Your task to perform on an android device: Add asus zenbook to the cart on target, then select checkout. Image 0: 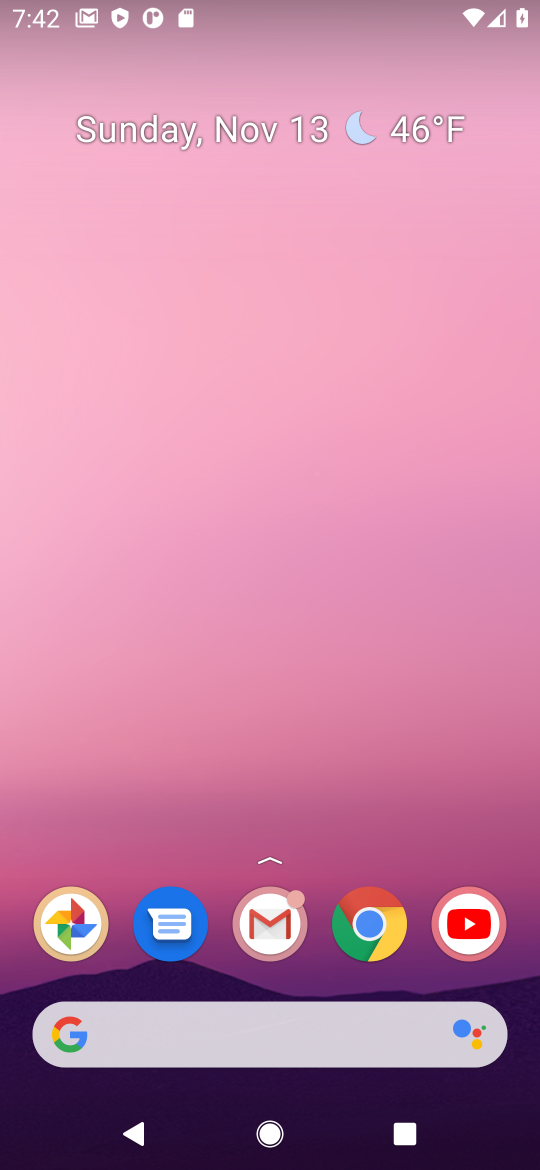
Step 0: click (364, 915)
Your task to perform on an android device: Add asus zenbook to the cart on target, then select checkout. Image 1: 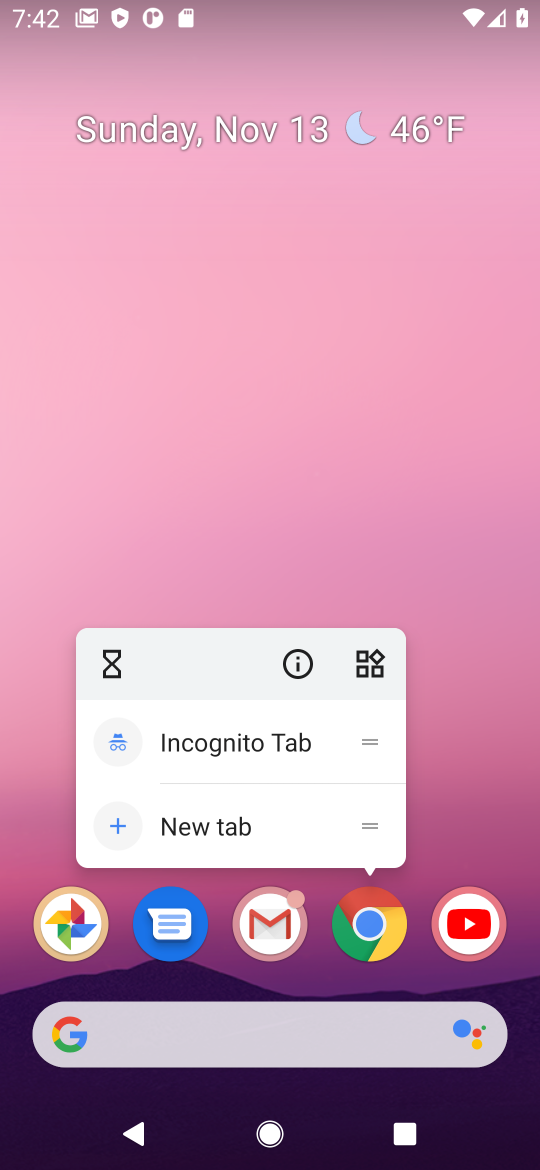
Step 1: click (364, 917)
Your task to perform on an android device: Add asus zenbook to the cart on target, then select checkout. Image 2: 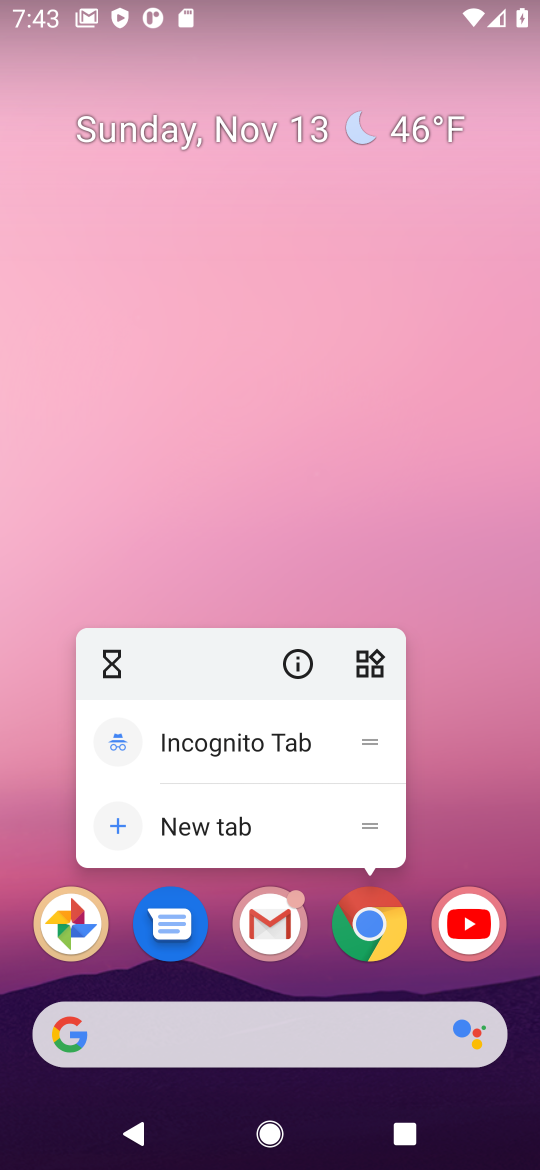
Step 2: click (366, 924)
Your task to perform on an android device: Add asus zenbook to the cart on target, then select checkout. Image 3: 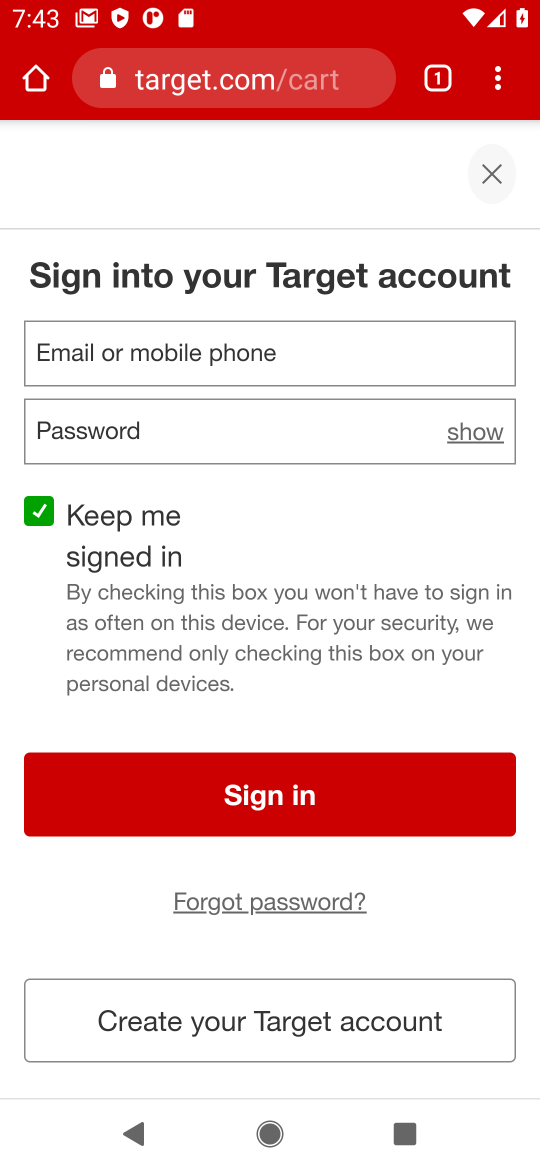
Step 3: click (485, 166)
Your task to perform on an android device: Add asus zenbook to the cart on target, then select checkout. Image 4: 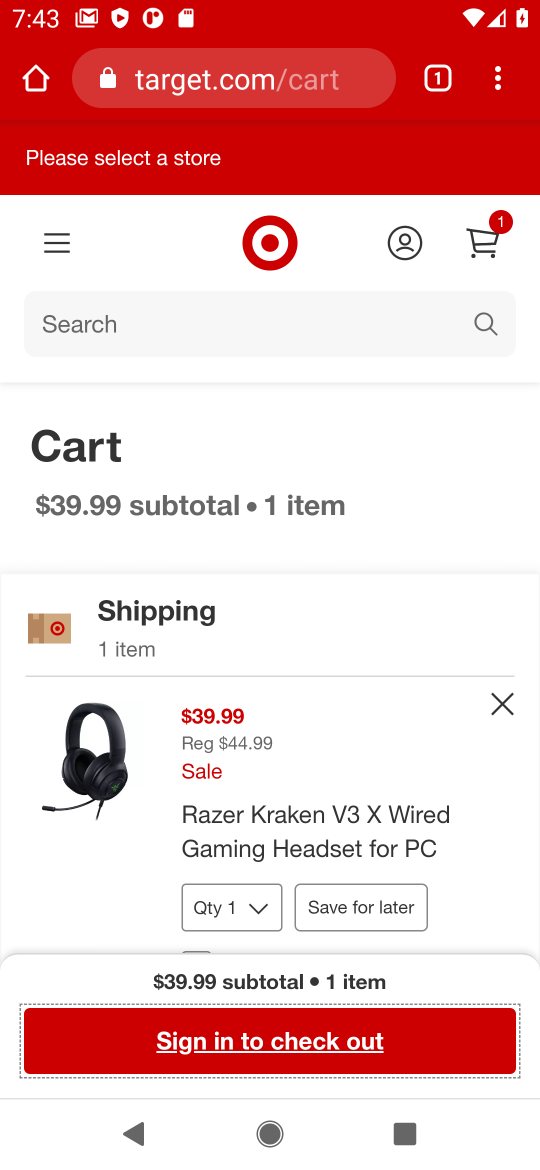
Step 4: click (212, 336)
Your task to perform on an android device: Add asus zenbook to the cart on target, then select checkout. Image 5: 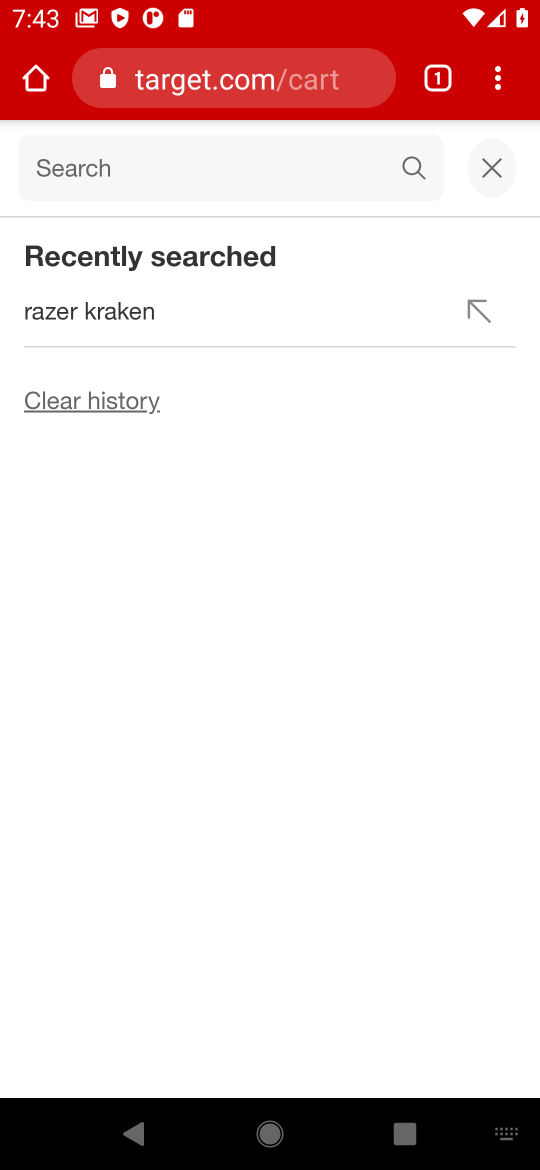
Step 5: type " asus zenbook"
Your task to perform on an android device: Add asus zenbook to the cart on target, then select checkout. Image 6: 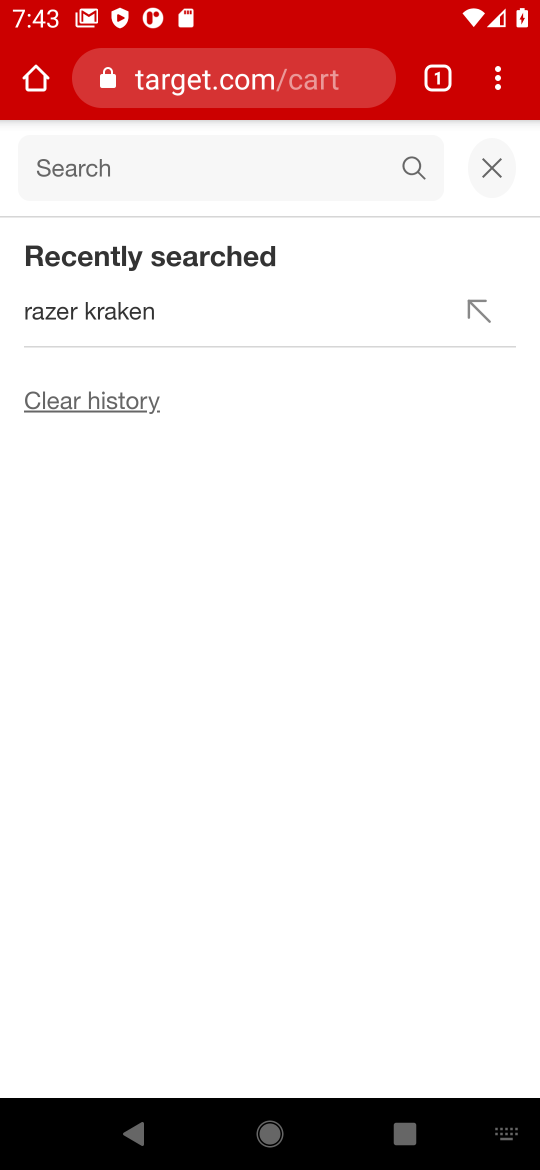
Step 6: press enter
Your task to perform on an android device: Add asus zenbook to the cart on target, then select checkout. Image 7: 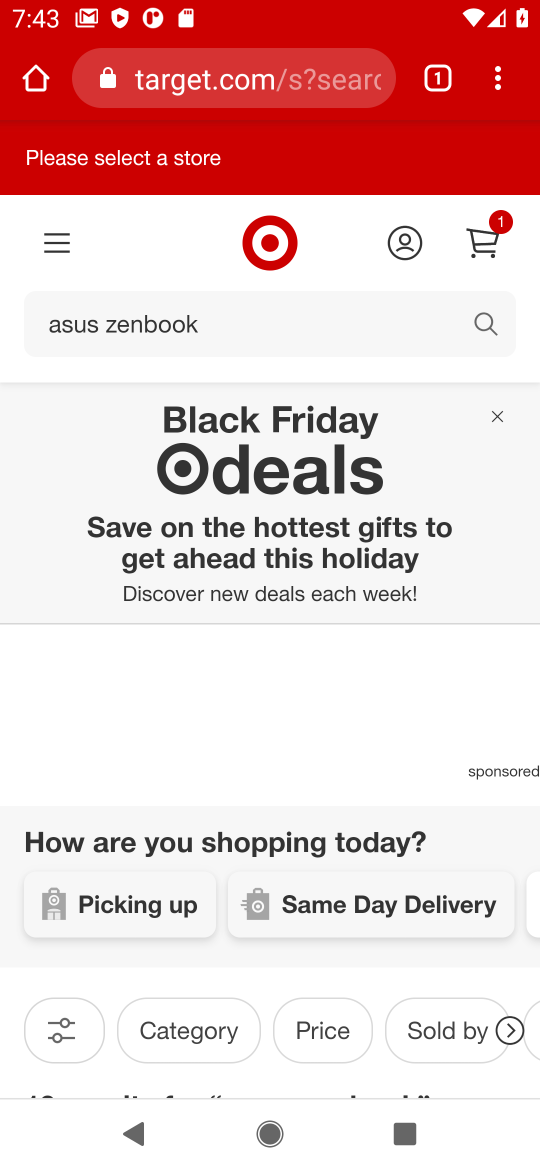
Step 7: drag from (312, 747) to (471, 338)
Your task to perform on an android device: Add asus zenbook to the cart on target, then select checkout. Image 8: 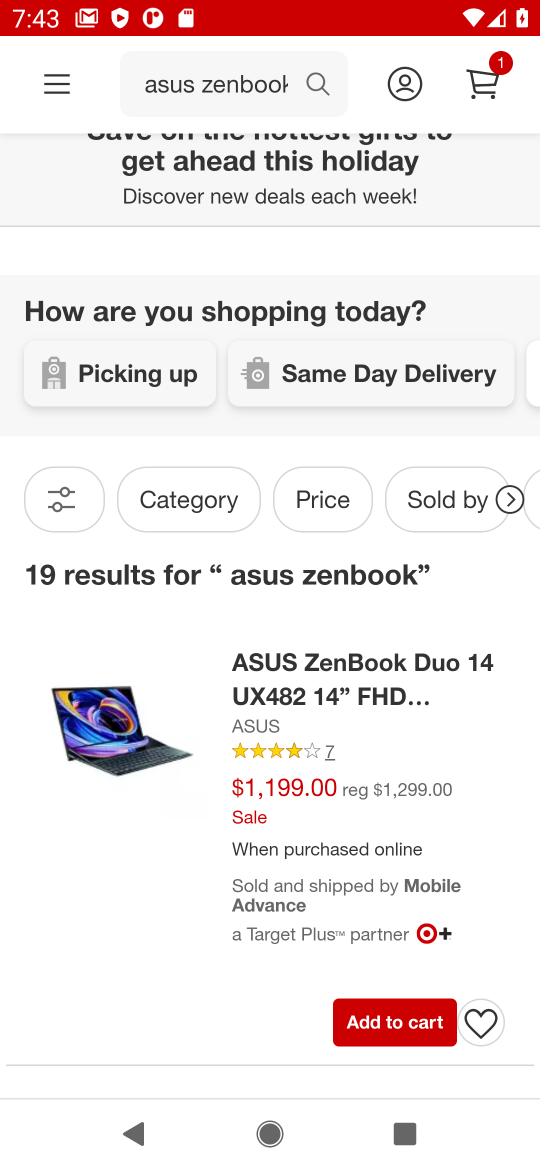
Step 8: click (347, 752)
Your task to perform on an android device: Add asus zenbook to the cart on target, then select checkout. Image 9: 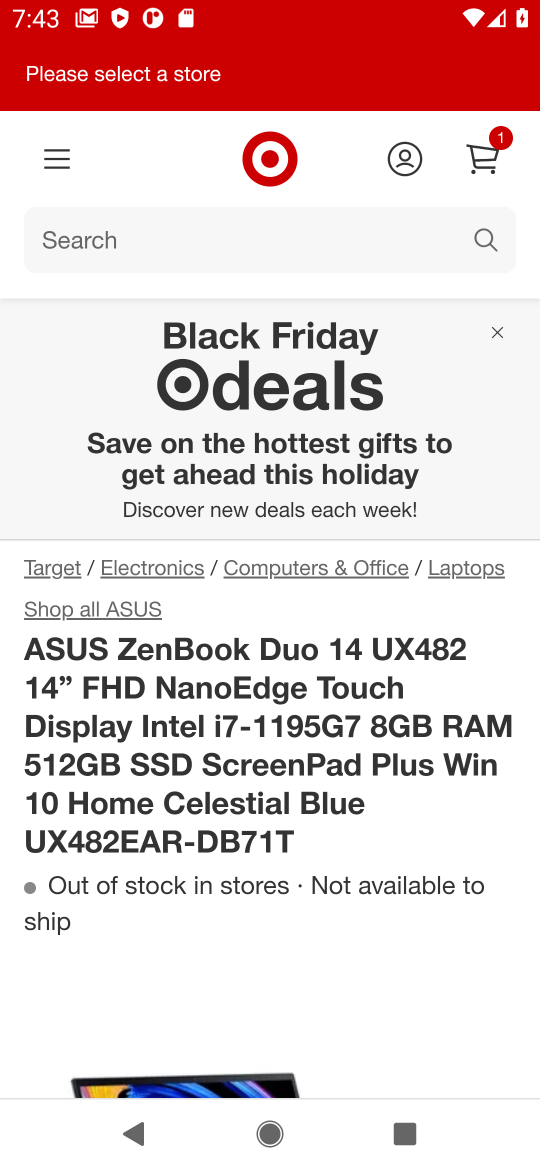
Step 9: drag from (245, 971) to (377, 146)
Your task to perform on an android device: Add asus zenbook to the cart on target, then select checkout. Image 10: 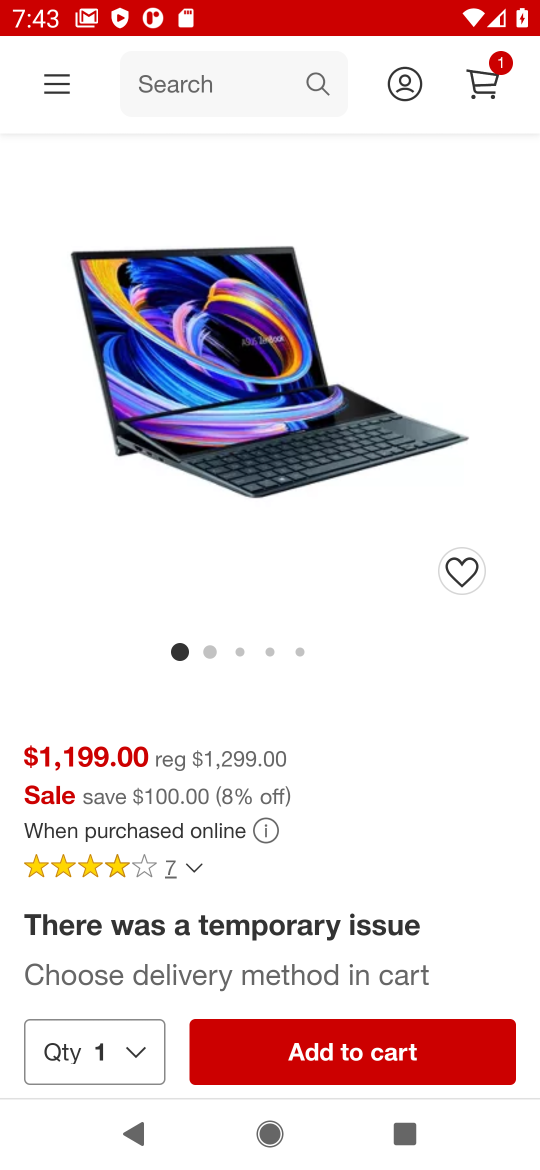
Step 10: click (410, 1053)
Your task to perform on an android device: Add asus zenbook to the cart on target, then select checkout. Image 11: 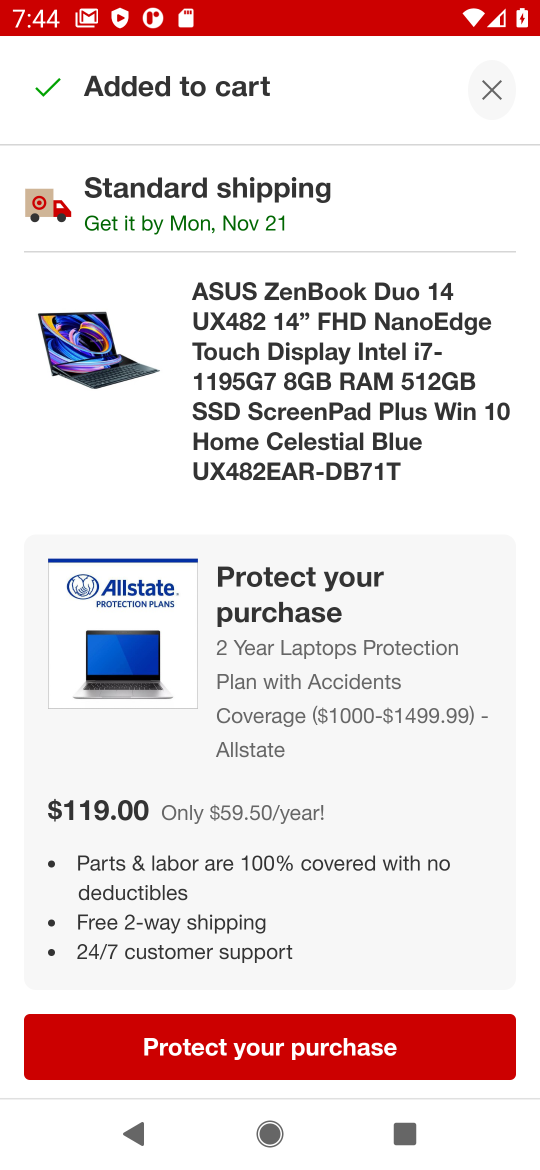
Step 11: drag from (291, 990) to (334, 219)
Your task to perform on an android device: Add asus zenbook to the cart on target, then select checkout. Image 12: 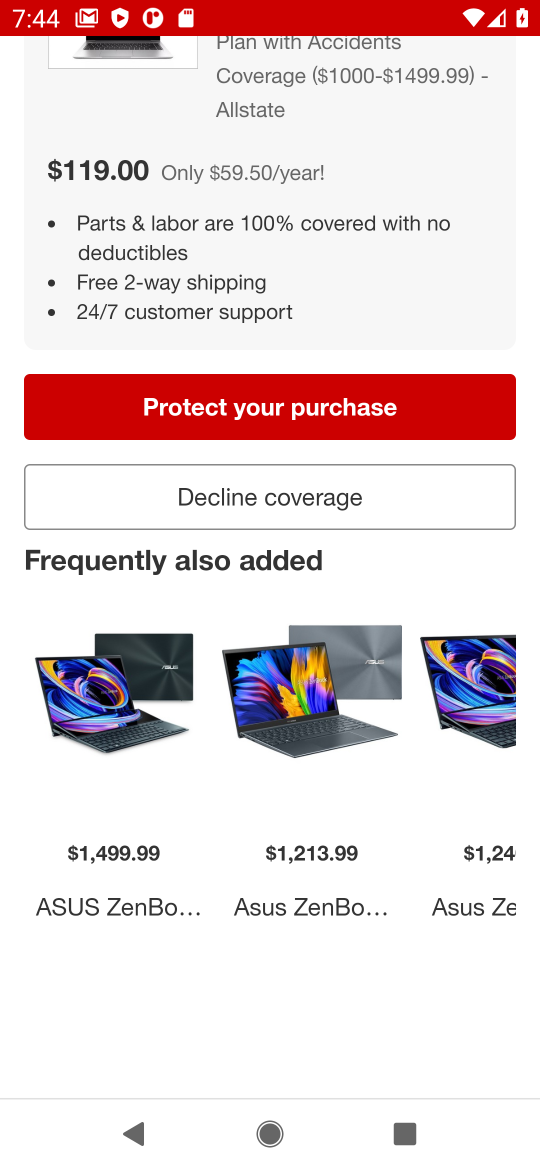
Step 12: click (301, 491)
Your task to perform on an android device: Add asus zenbook to the cart on target, then select checkout. Image 13: 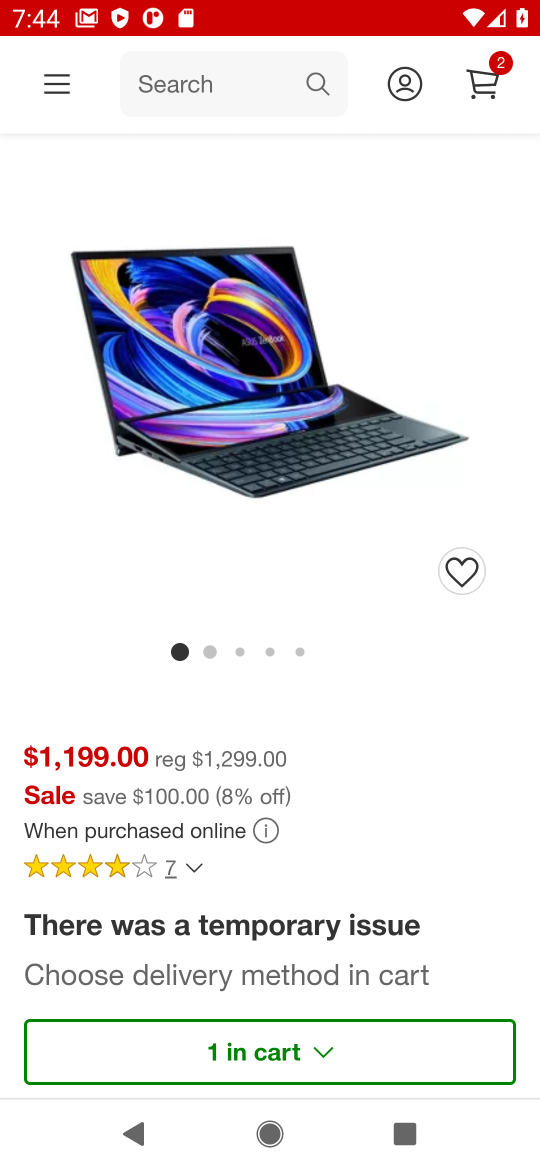
Step 13: click (489, 73)
Your task to perform on an android device: Add asus zenbook to the cart on target, then select checkout. Image 14: 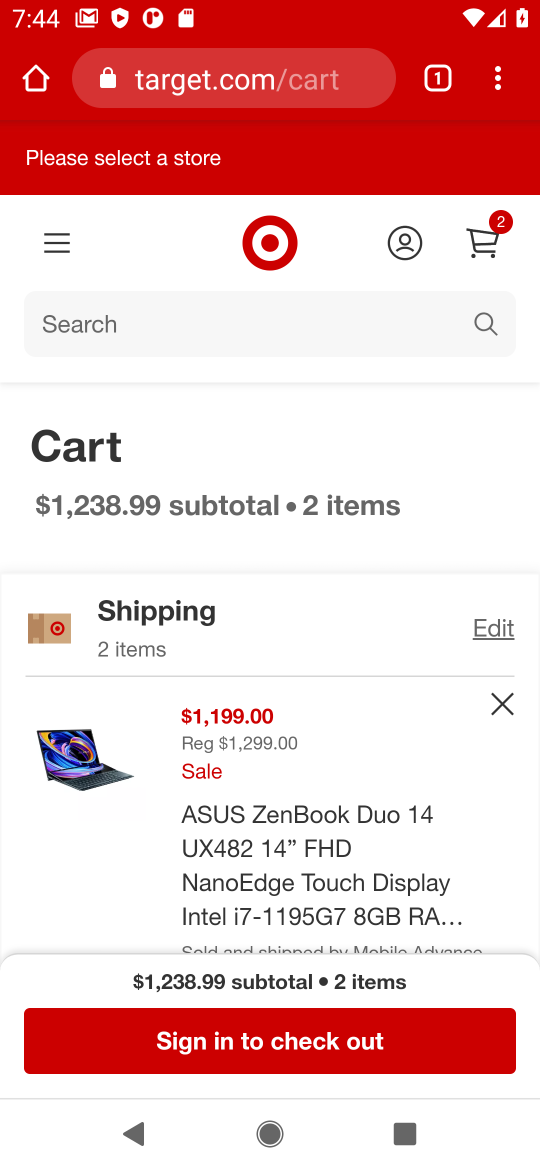
Step 14: drag from (258, 837) to (479, 235)
Your task to perform on an android device: Add asus zenbook to the cart on target, then select checkout. Image 15: 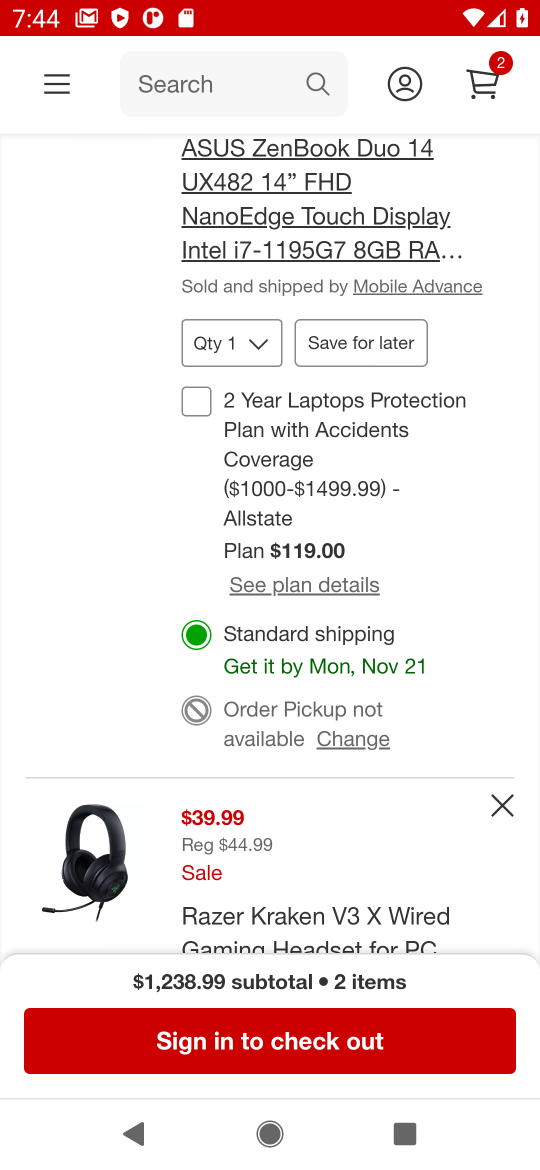
Step 15: drag from (271, 853) to (428, 2)
Your task to perform on an android device: Add asus zenbook to the cart on target, then select checkout. Image 16: 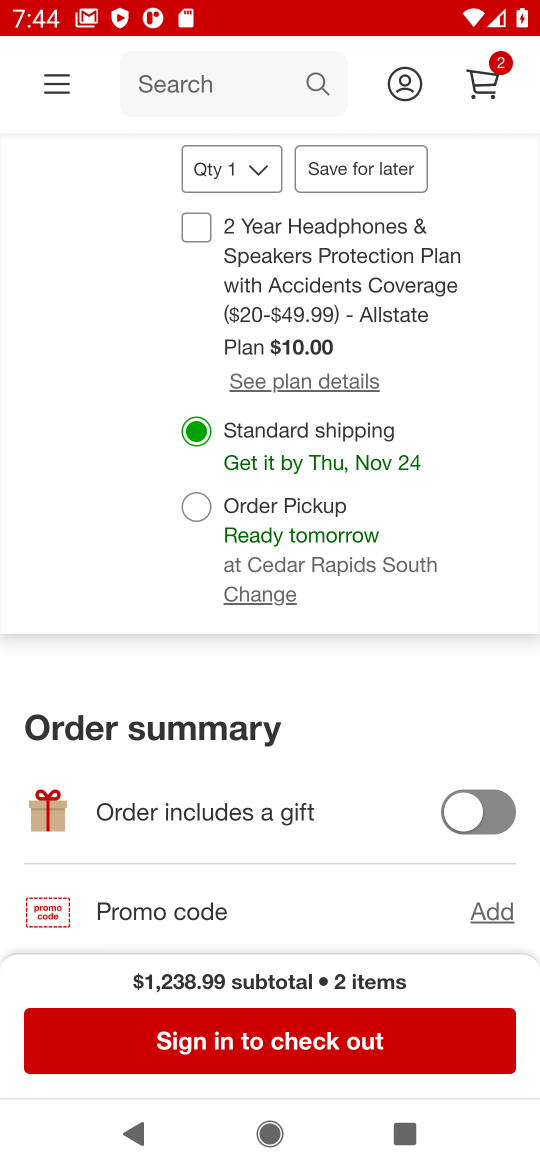
Step 16: drag from (378, 214) to (358, 583)
Your task to perform on an android device: Add asus zenbook to the cart on target, then select checkout. Image 17: 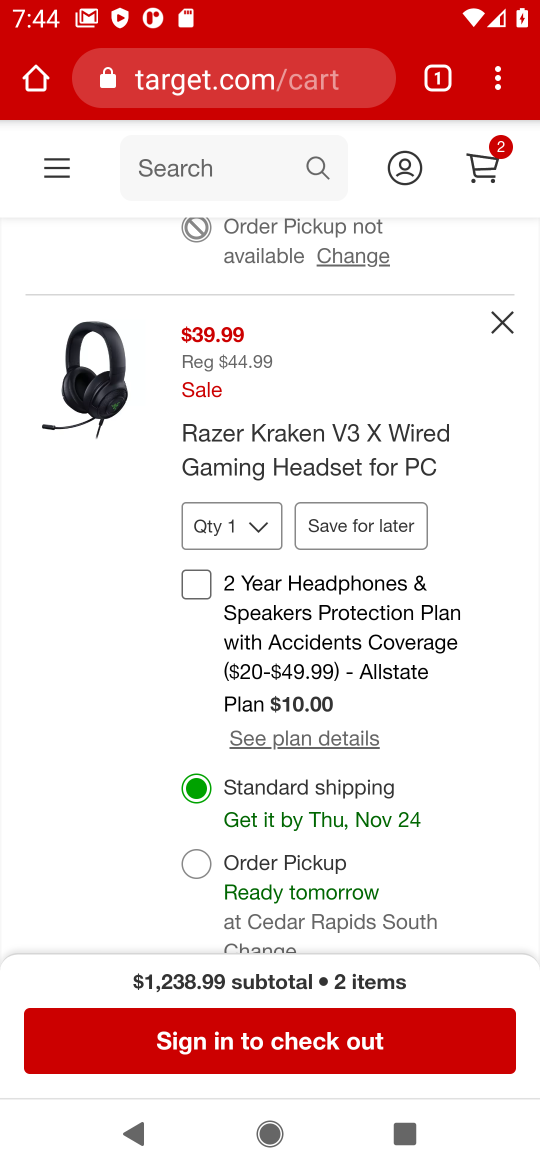
Step 17: click (508, 351)
Your task to perform on an android device: Add asus zenbook to the cart on target, then select checkout. Image 18: 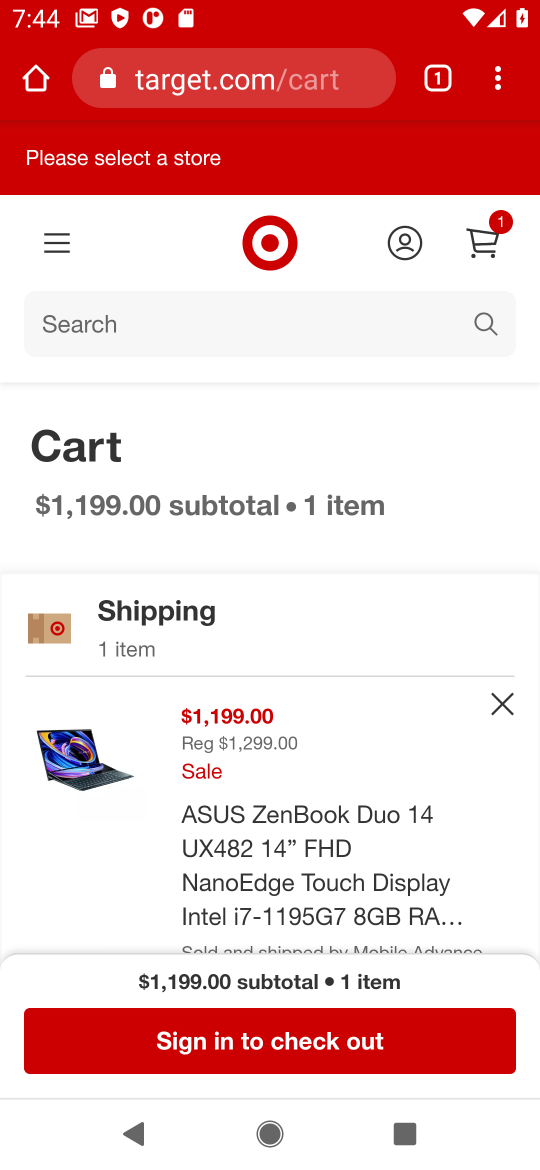
Step 18: click (291, 1053)
Your task to perform on an android device: Add asus zenbook to the cart on target, then select checkout. Image 19: 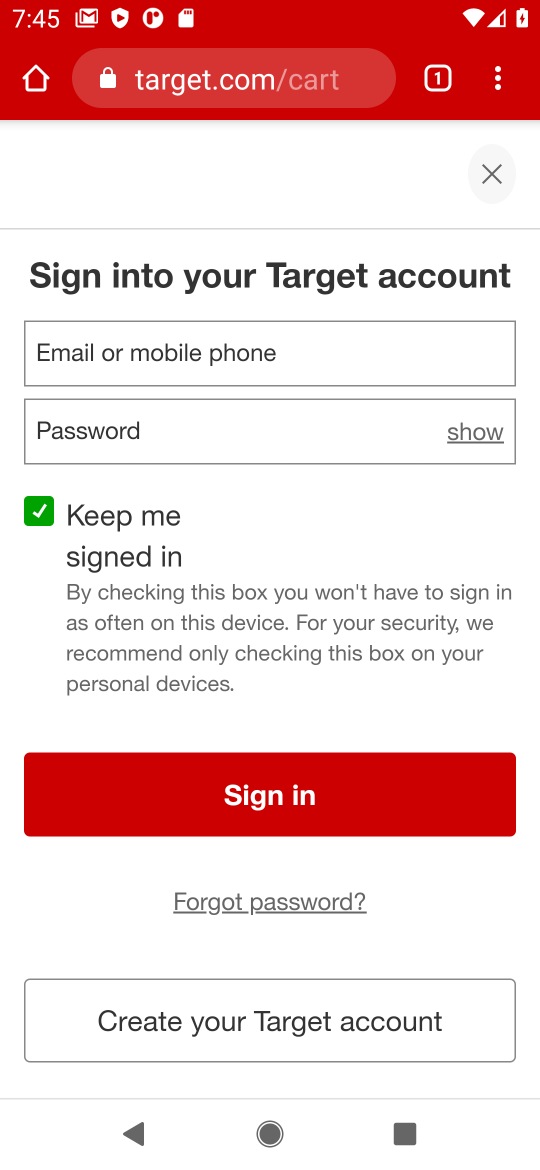
Step 19: task complete